Your task to perform on an android device: Open Chrome and go to settings Image 0: 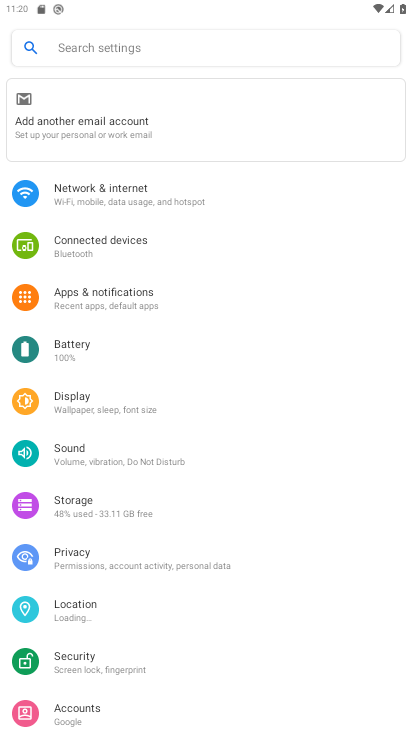
Step 0: press home button
Your task to perform on an android device: Open Chrome and go to settings Image 1: 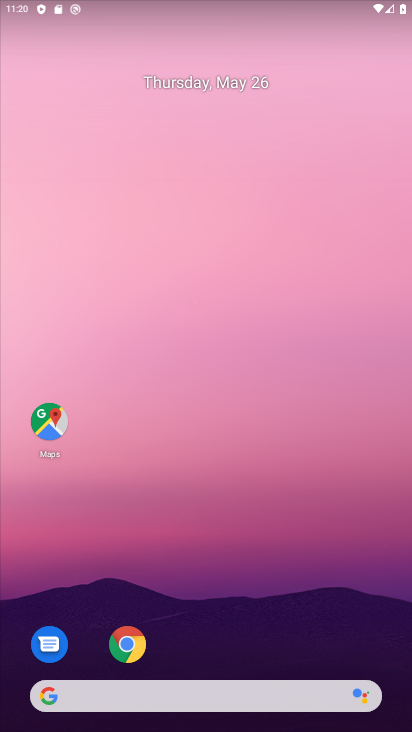
Step 1: drag from (197, 651) to (321, 64)
Your task to perform on an android device: Open Chrome and go to settings Image 2: 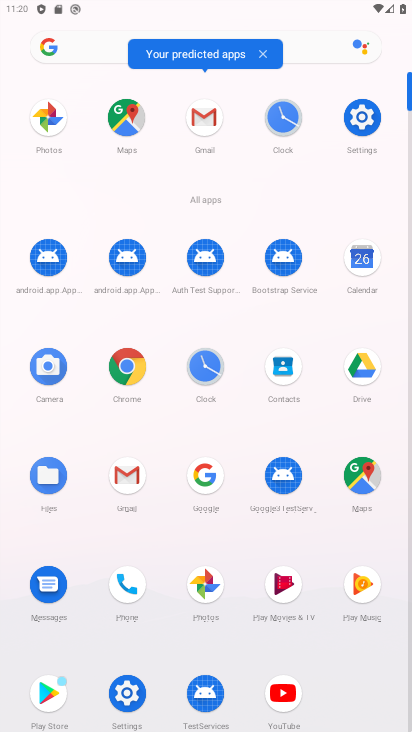
Step 2: click (131, 368)
Your task to perform on an android device: Open Chrome and go to settings Image 3: 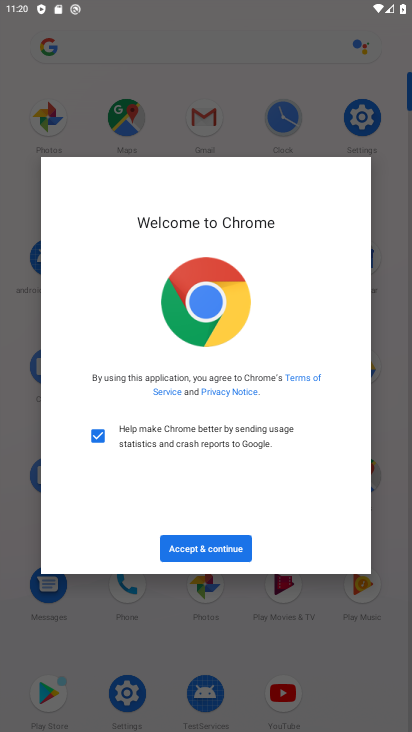
Step 3: click (249, 551)
Your task to perform on an android device: Open Chrome and go to settings Image 4: 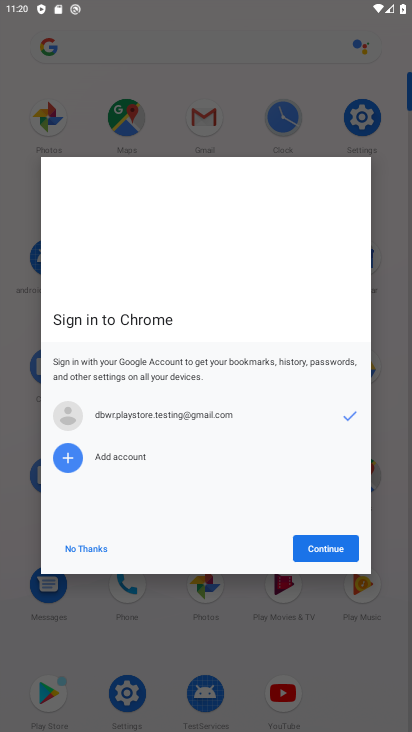
Step 4: click (326, 541)
Your task to perform on an android device: Open Chrome and go to settings Image 5: 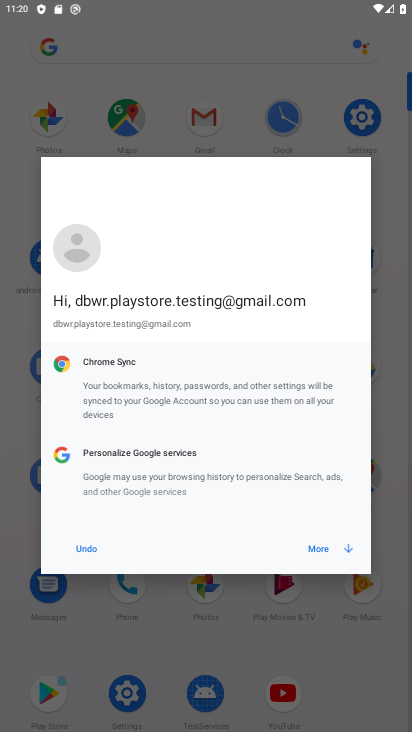
Step 5: click (323, 552)
Your task to perform on an android device: Open Chrome and go to settings Image 6: 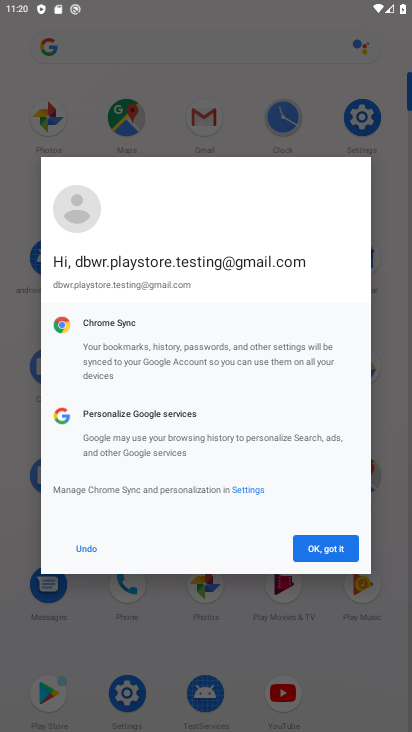
Step 6: click (323, 552)
Your task to perform on an android device: Open Chrome and go to settings Image 7: 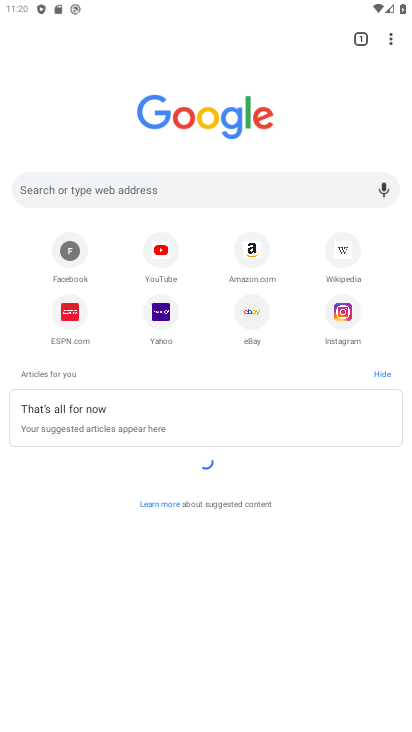
Step 7: task complete